Your task to perform on an android device: check android version Image 0: 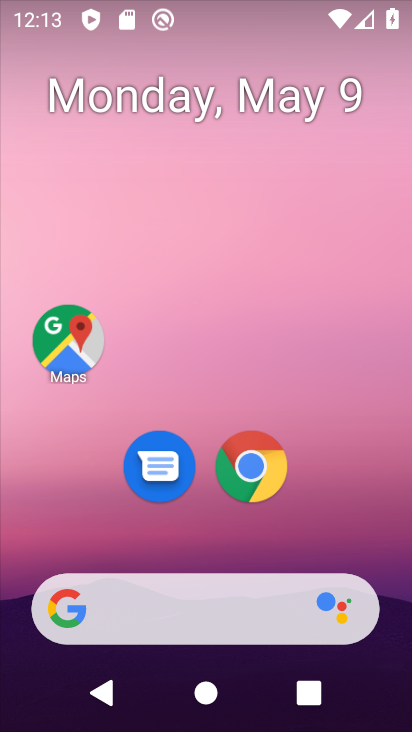
Step 0: drag from (388, 501) to (332, 130)
Your task to perform on an android device: check android version Image 1: 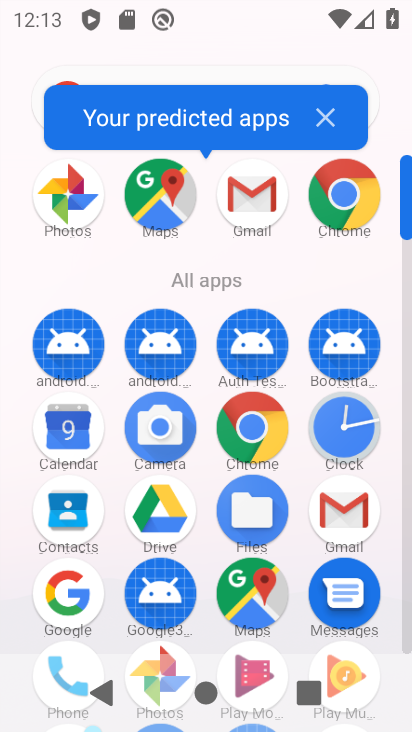
Step 1: click (408, 633)
Your task to perform on an android device: check android version Image 2: 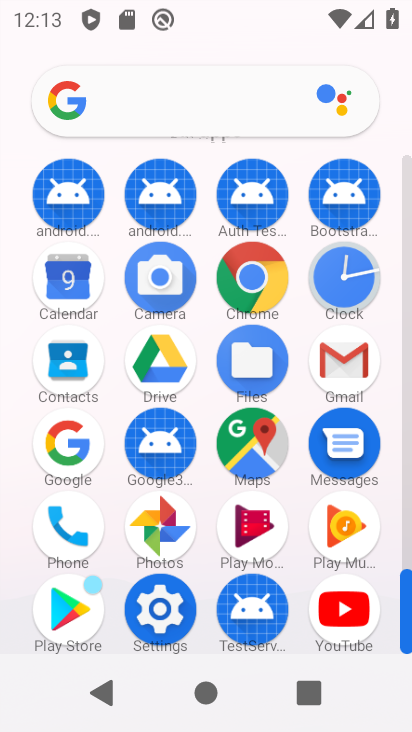
Step 2: click (163, 606)
Your task to perform on an android device: check android version Image 3: 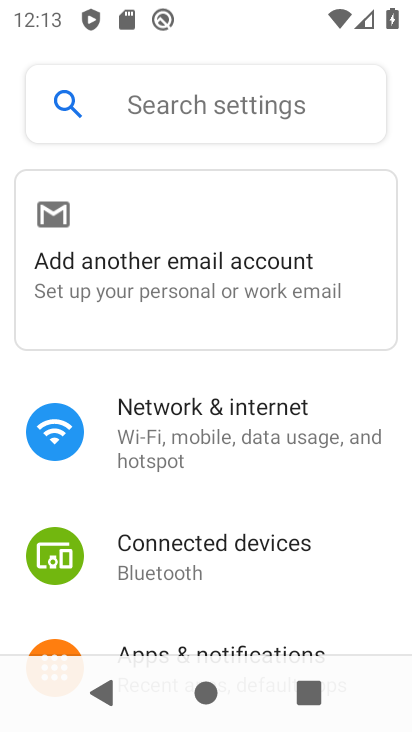
Step 3: drag from (294, 615) to (223, 53)
Your task to perform on an android device: check android version Image 4: 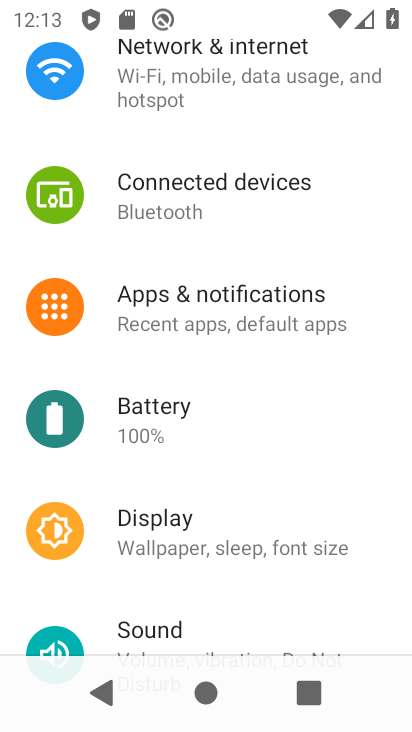
Step 4: drag from (359, 609) to (280, 109)
Your task to perform on an android device: check android version Image 5: 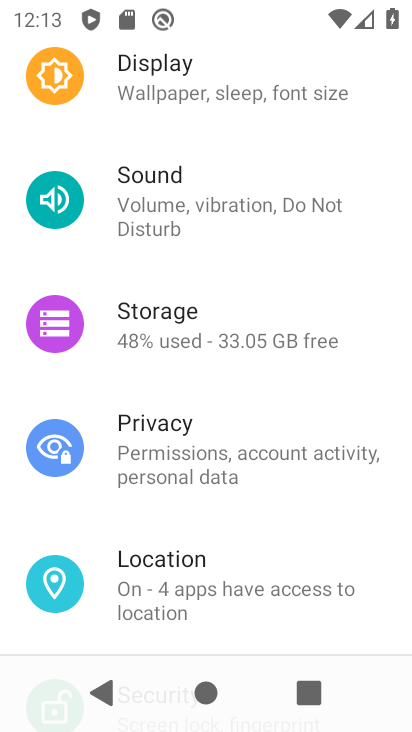
Step 5: drag from (316, 519) to (234, 35)
Your task to perform on an android device: check android version Image 6: 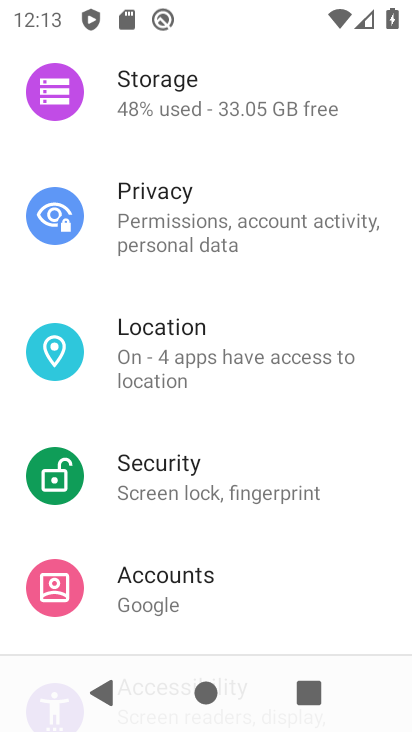
Step 6: drag from (323, 520) to (259, 53)
Your task to perform on an android device: check android version Image 7: 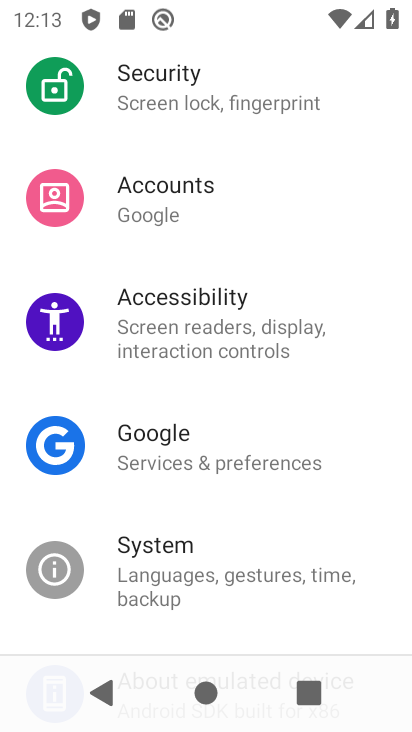
Step 7: drag from (294, 526) to (248, 127)
Your task to perform on an android device: check android version Image 8: 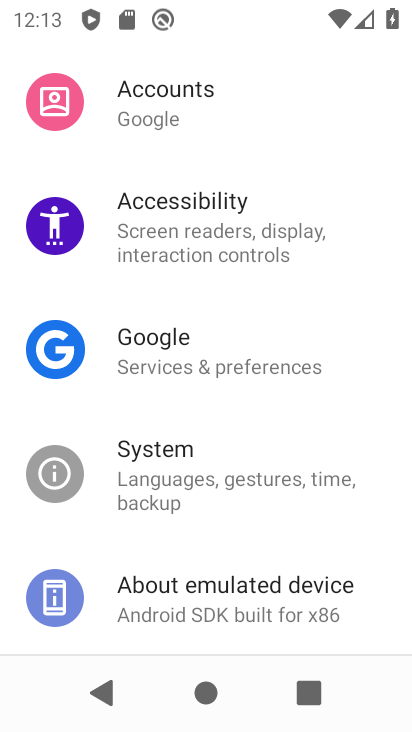
Step 8: click (289, 586)
Your task to perform on an android device: check android version Image 9: 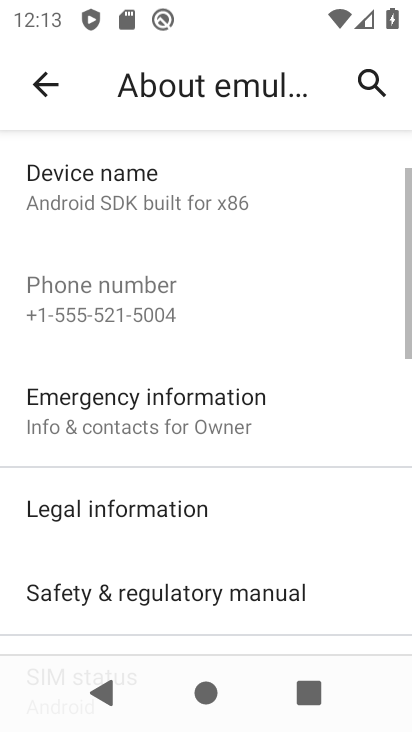
Step 9: drag from (303, 538) to (234, 67)
Your task to perform on an android device: check android version Image 10: 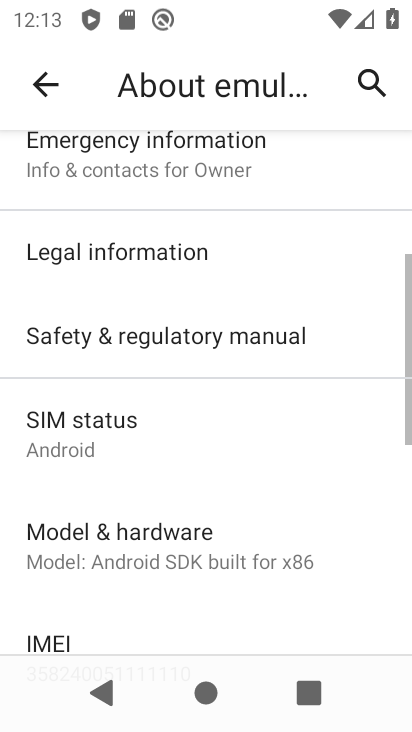
Step 10: drag from (333, 481) to (184, 51)
Your task to perform on an android device: check android version Image 11: 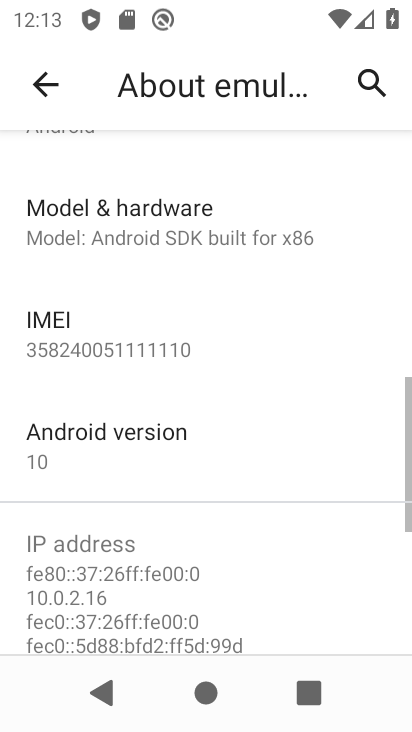
Step 11: click (221, 437)
Your task to perform on an android device: check android version Image 12: 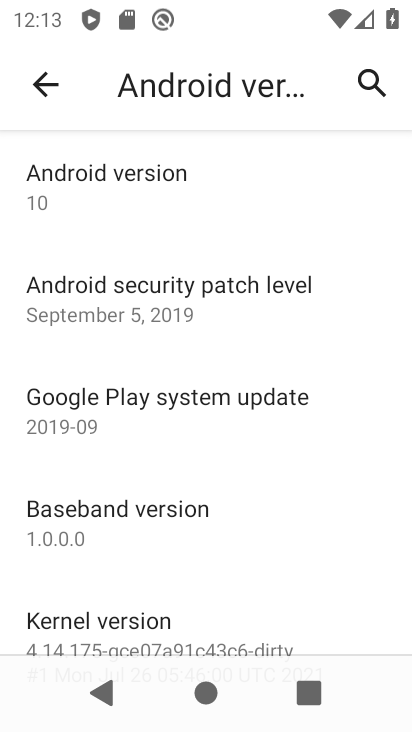
Step 12: task complete